Your task to perform on an android device: What is the recent news? Image 0: 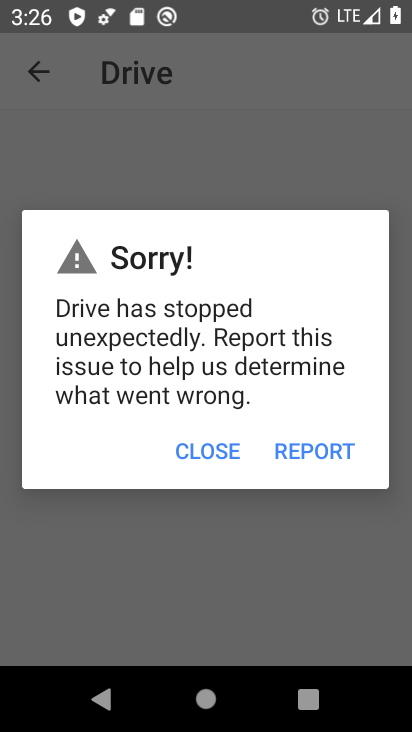
Step 0: press home button
Your task to perform on an android device: What is the recent news? Image 1: 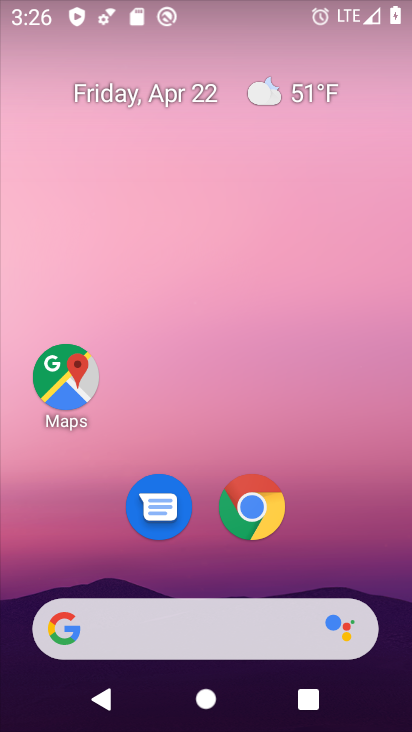
Step 1: task complete